Your task to perform on an android device: Show me popular games on the Play Store Image 0: 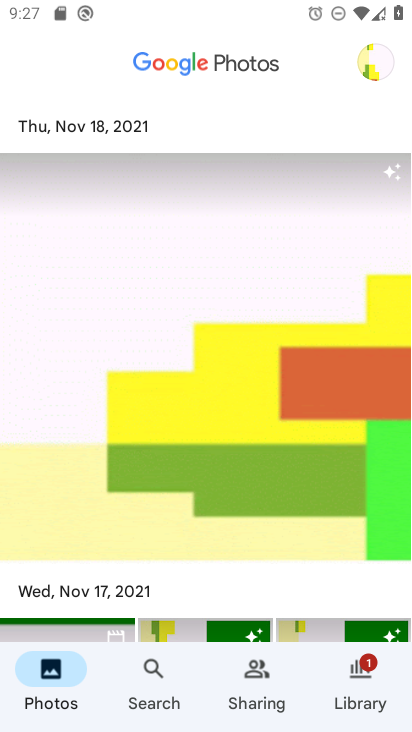
Step 0: press home button
Your task to perform on an android device: Show me popular games on the Play Store Image 1: 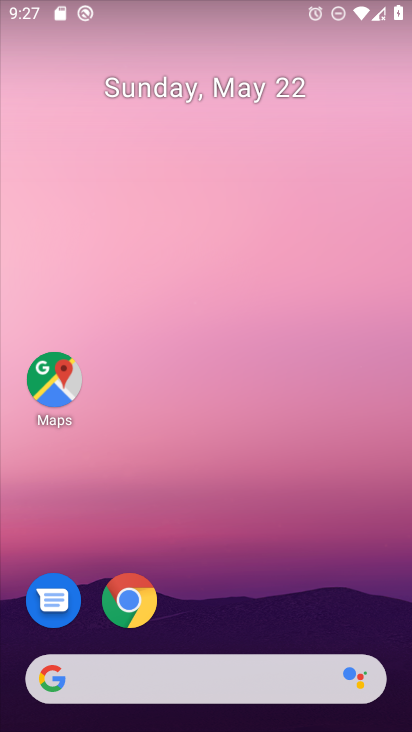
Step 1: drag from (241, 633) to (357, 166)
Your task to perform on an android device: Show me popular games on the Play Store Image 2: 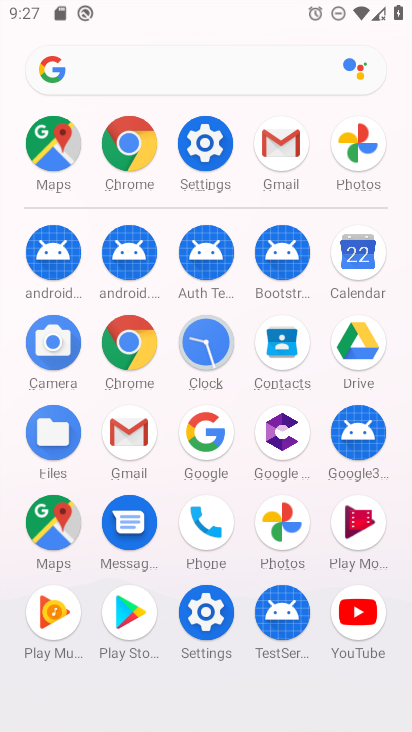
Step 2: click (134, 615)
Your task to perform on an android device: Show me popular games on the Play Store Image 3: 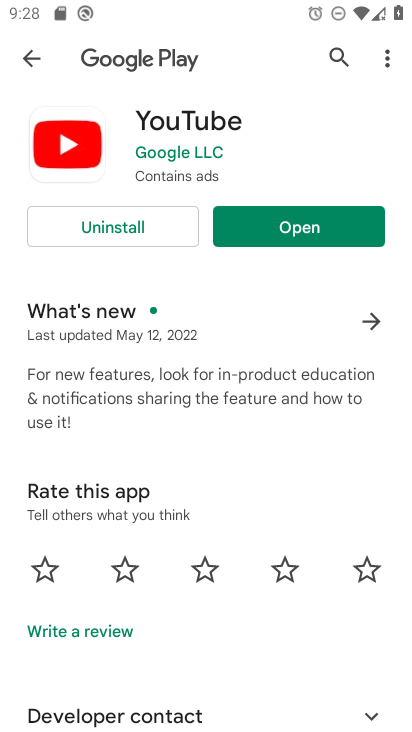
Step 3: click (25, 55)
Your task to perform on an android device: Show me popular games on the Play Store Image 4: 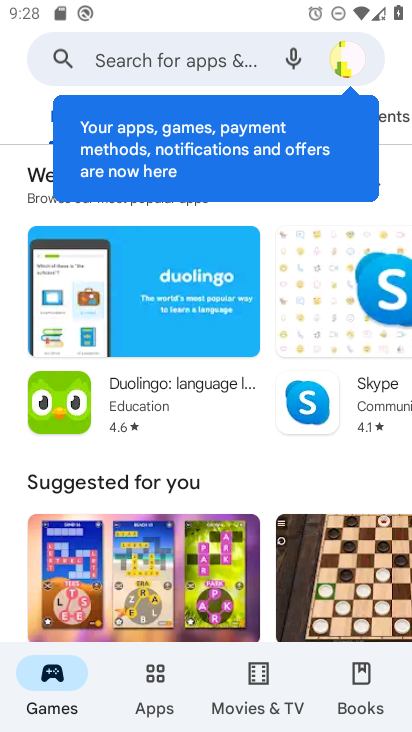
Step 4: task complete